Your task to perform on an android device: open device folders in google photos Image 0: 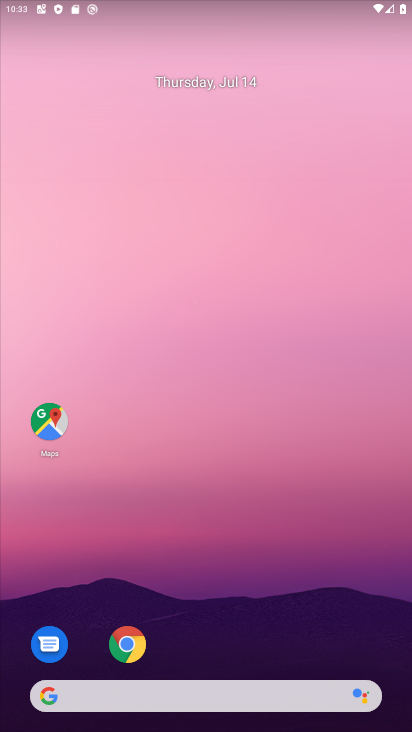
Step 0: drag from (230, 688) to (266, 213)
Your task to perform on an android device: open device folders in google photos Image 1: 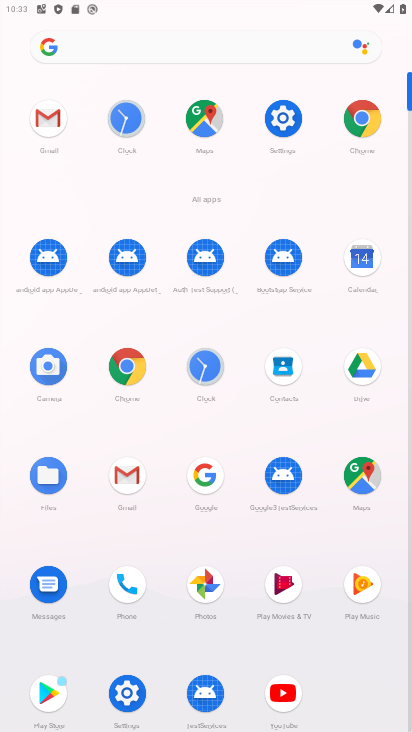
Step 1: click (207, 590)
Your task to perform on an android device: open device folders in google photos Image 2: 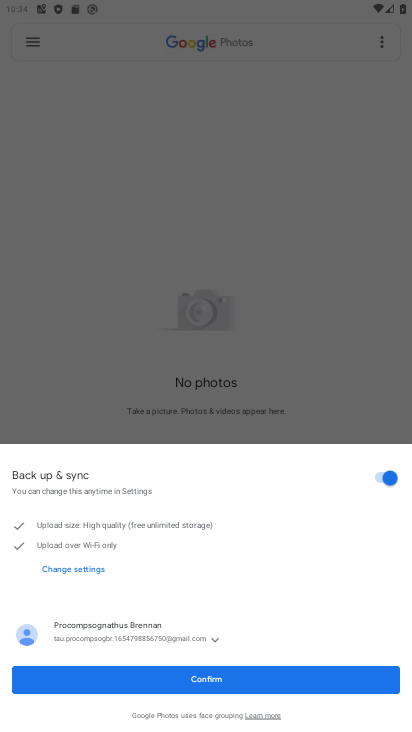
Step 2: click (202, 685)
Your task to perform on an android device: open device folders in google photos Image 3: 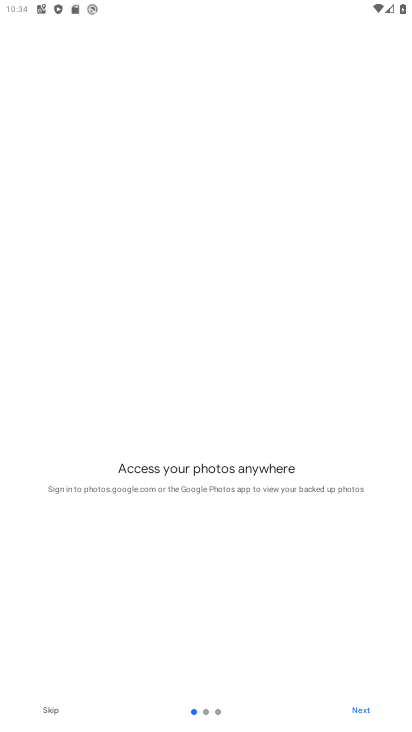
Step 3: click (368, 716)
Your task to perform on an android device: open device folders in google photos Image 4: 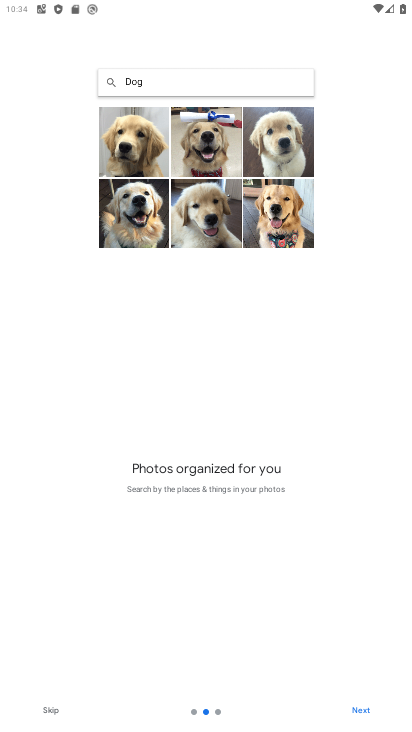
Step 4: click (363, 709)
Your task to perform on an android device: open device folders in google photos Image 5: 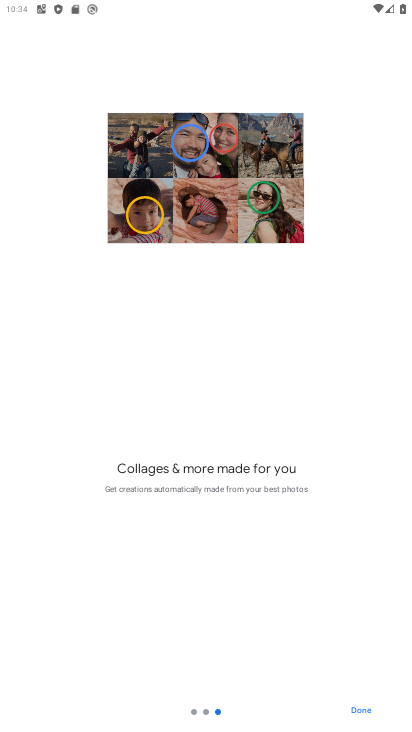
Step 5: click (363, 709)
Your task to perform on an android device: open device folders in google photos Image 6: 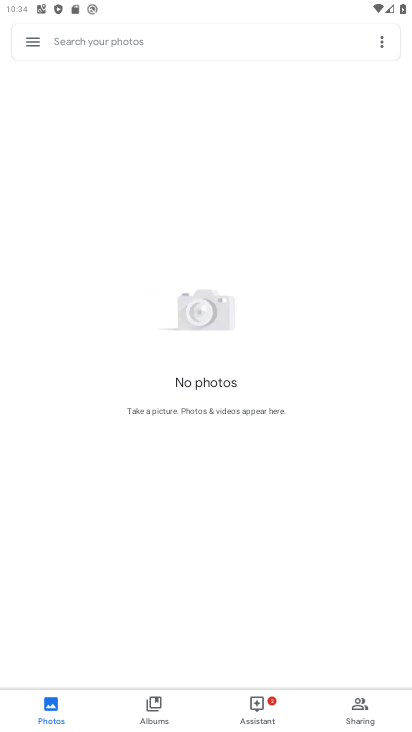
Step 6: click (150, 712)
Your task to perform on an android device: open device folders in google photos Image 7: 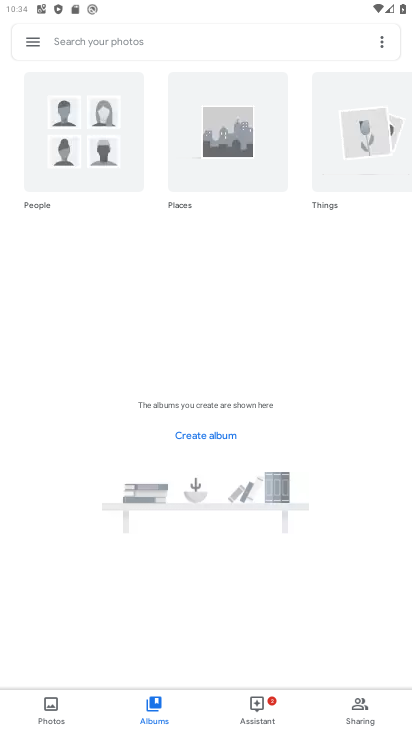
Step 7: task complete